Your task to perform on an android device: open app "Cash App" Image 0: 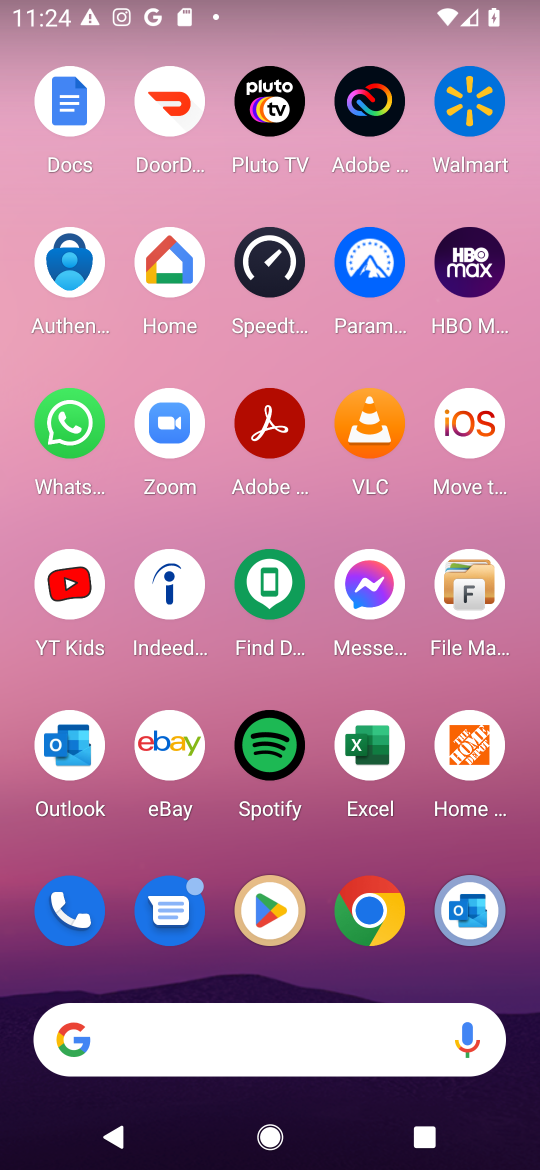
Step 0: click (256, 891)
Your task to perform on an android device: open app "Cash App" Image 1: 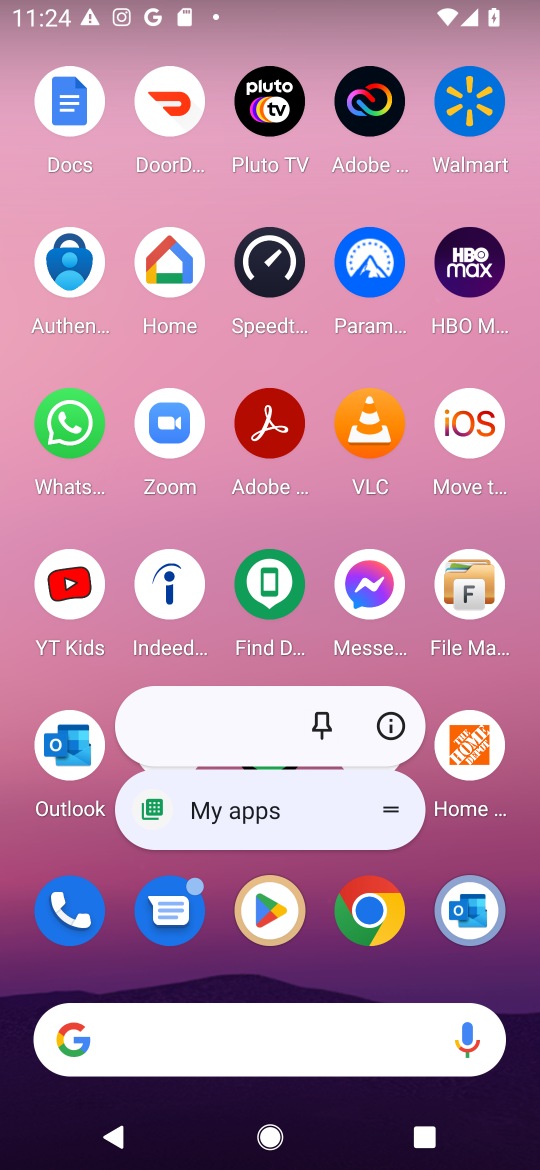
Step 1: click (250, 931)
Your task to perform on an android device: open app "Cash App" Image 2: 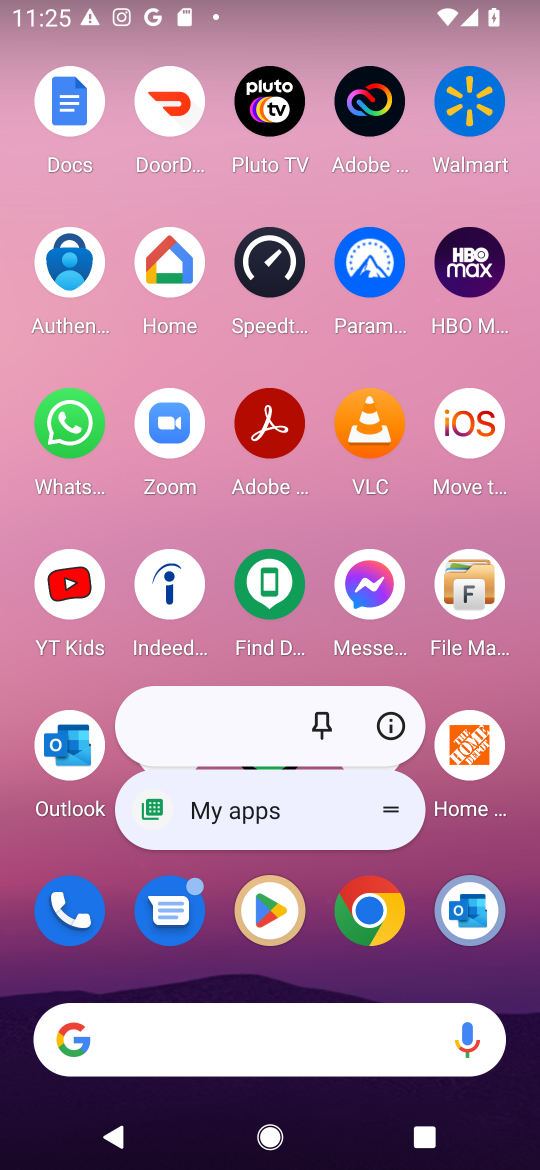
Step 2: click (276, 916)
Your task to perform on an android device: open app "Cash App" Image 3: 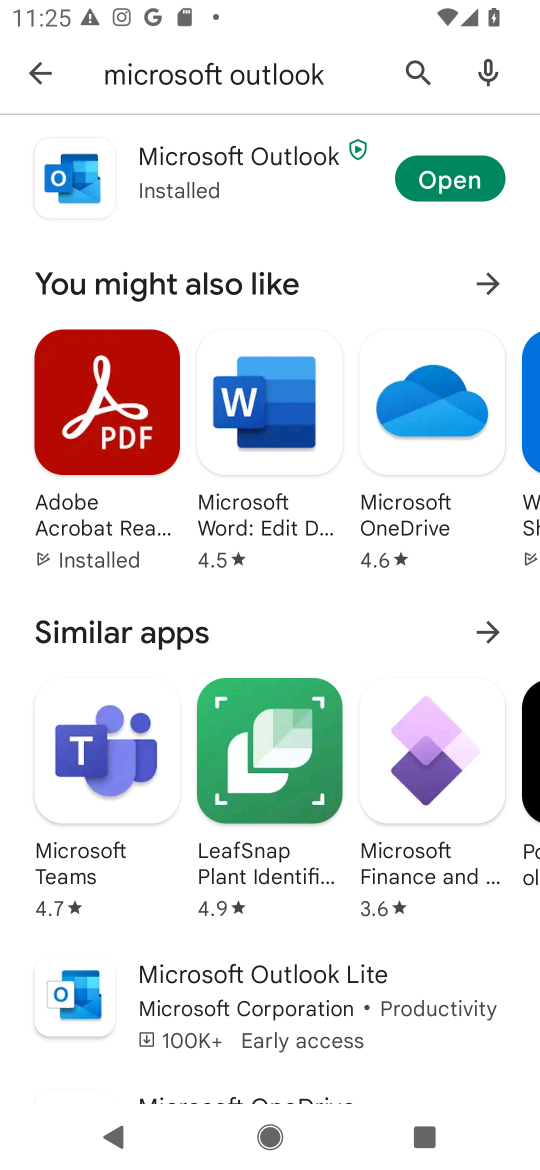
Step 3: click (424, 168)
Your task to perform on an android device: open app "Cash App" Image 4: 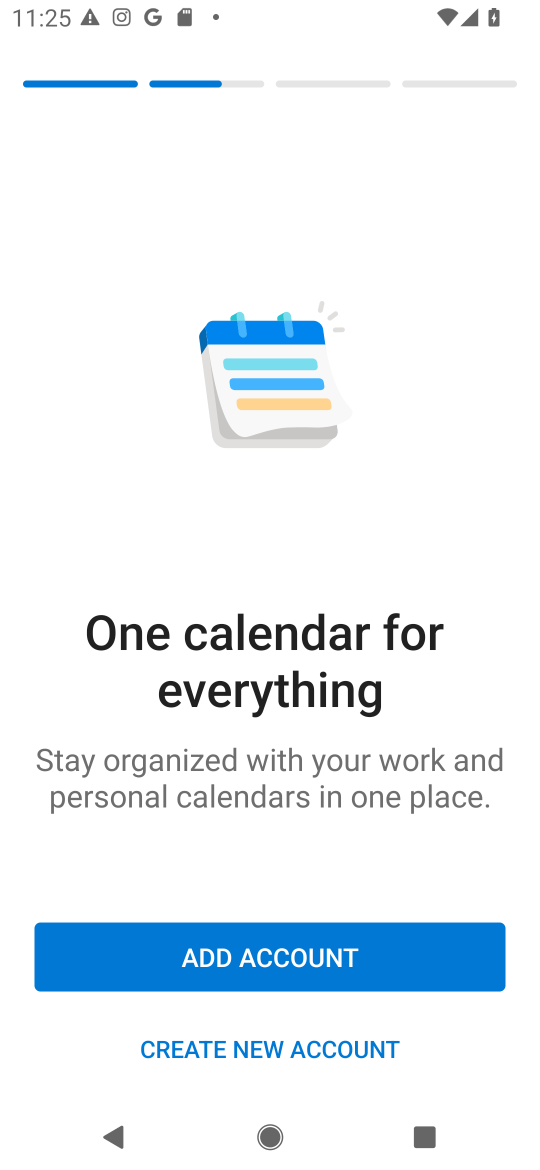
Step 4: press back button
Your task to perform on an android device: open app "Cash App" Image 5: 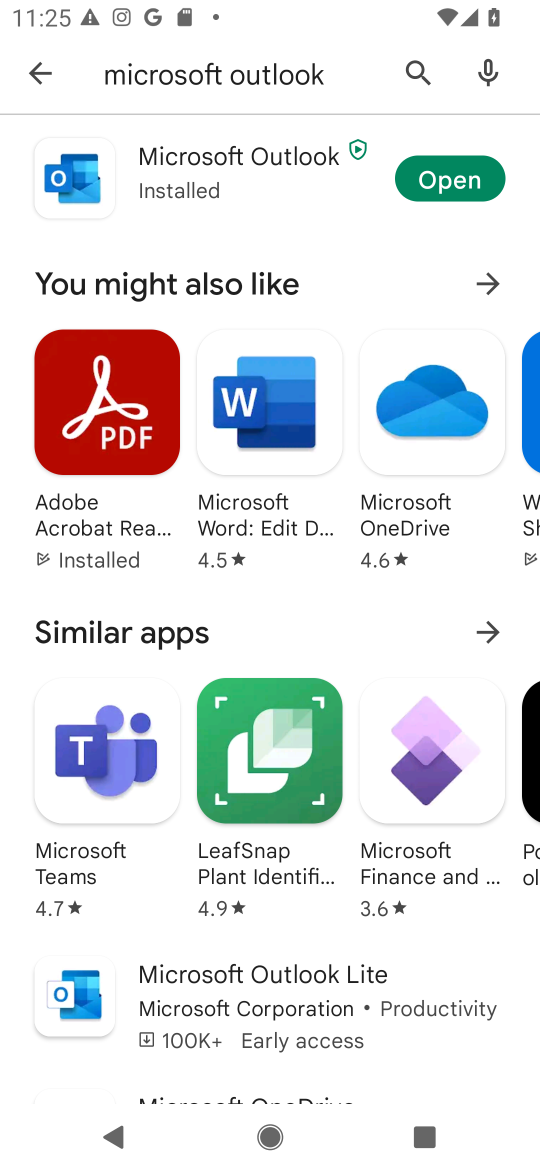
Step 5: click (422, 74)
Your task to perform on an android device: open app "Cash App" Image 6: 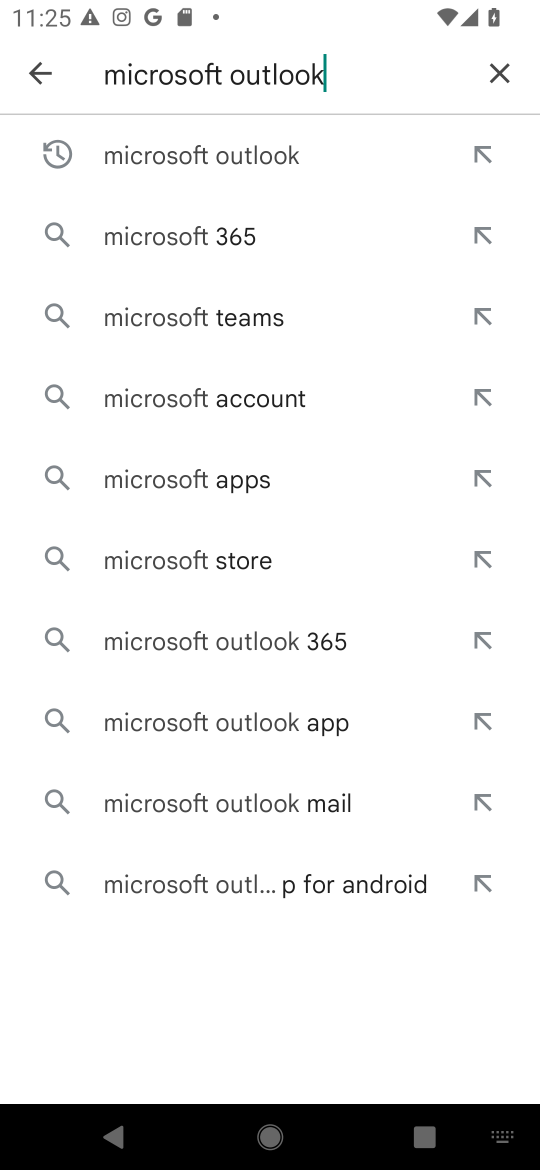
Step 6: click (506, 73)
Your task to perform on an android device: open app "Cash App" Image 7: 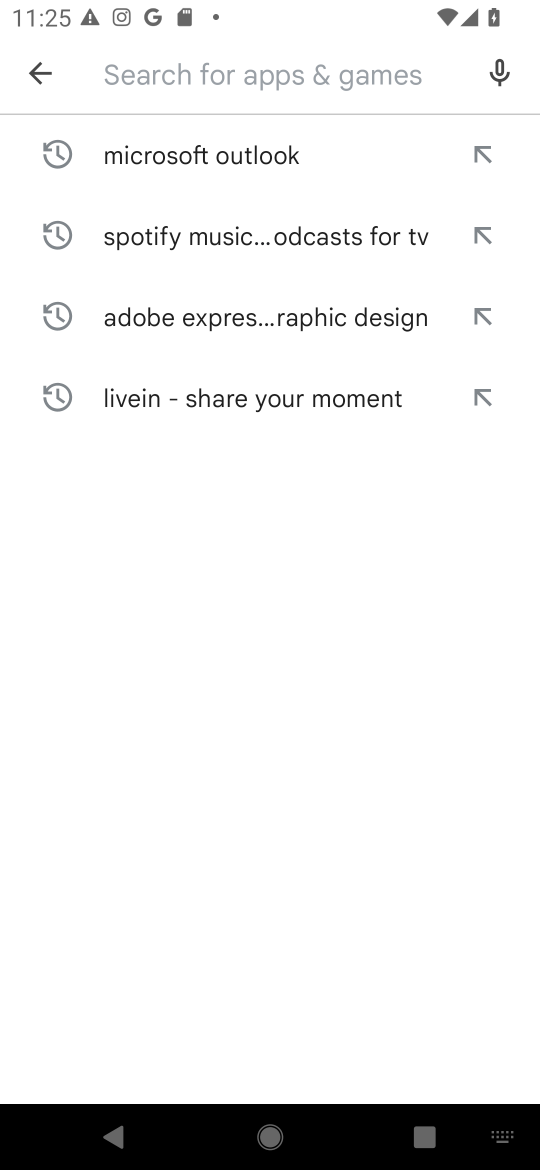
Step 7: type "Cash App"
Your task to perform on an android device: open app "Cash App" Image 8: 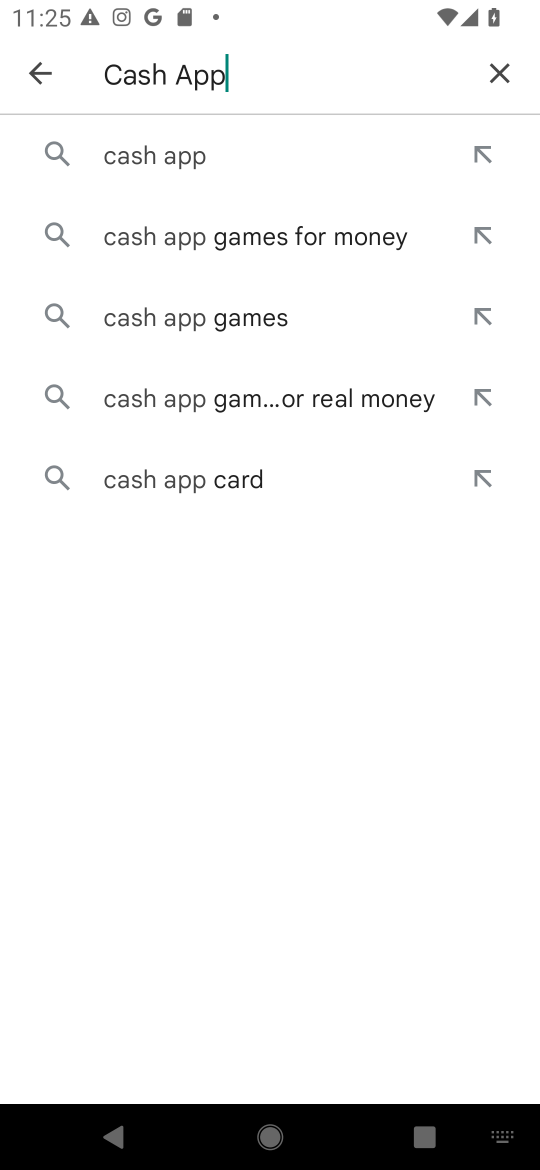
Step 8: click (216, 158)
Your task to perform on an android device: open app "Cash App" Image 9: 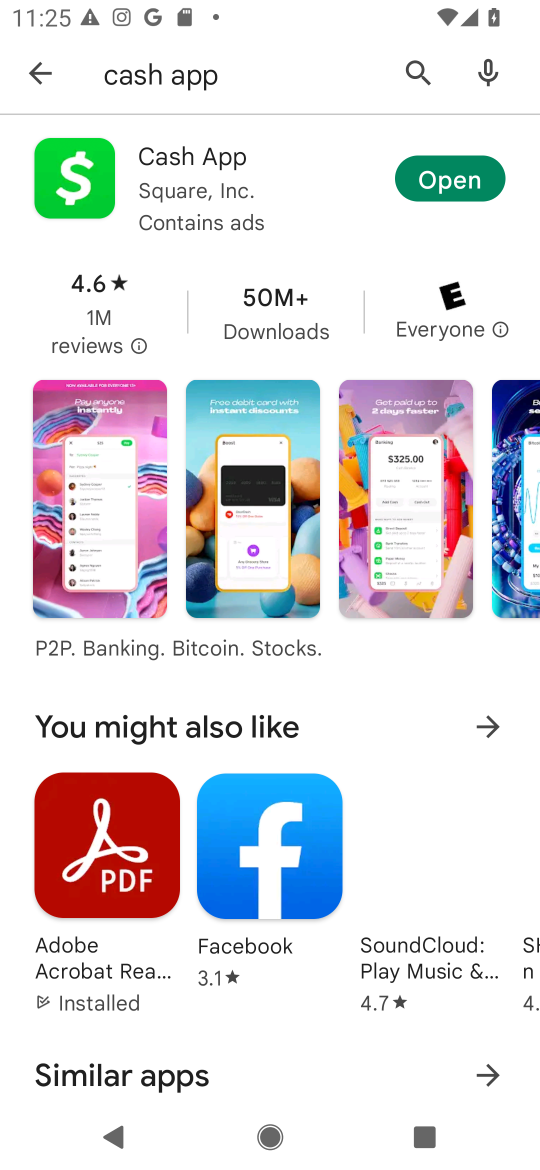
Step 9: click (415, 188)
Your task to perform on an android device: open app "Cash App" Image 10: 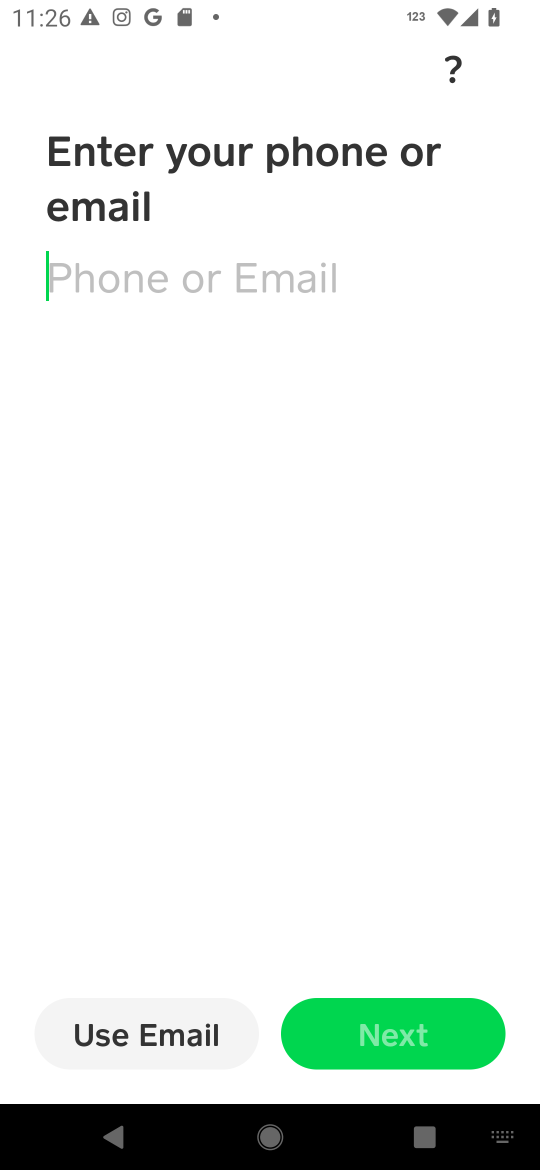
Step 10: task complete